Your task to perform on an android device: Open Google Image 0: 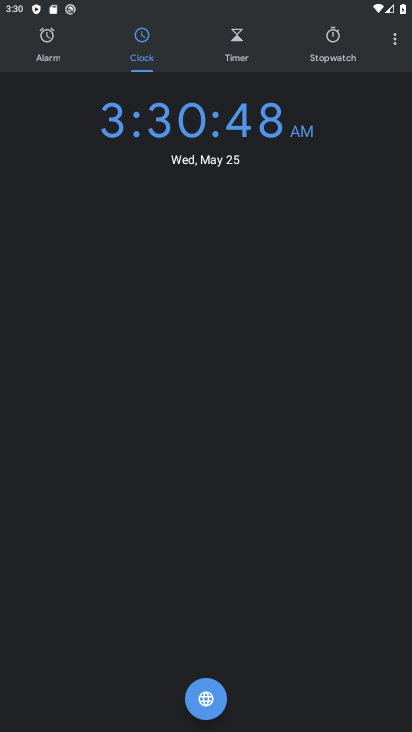
Step 0: press home button
Your task to perform on an android device: Open Google Image 1: 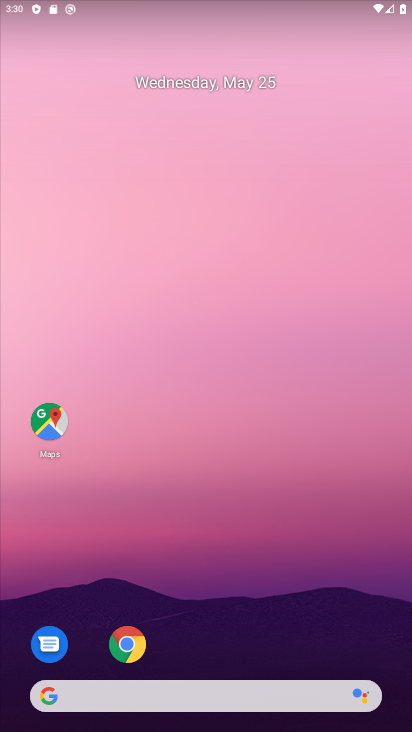
Step 1: drag from (238, 655) to (256, 42)
Your task to perform on an android device: Open Google Image 2: 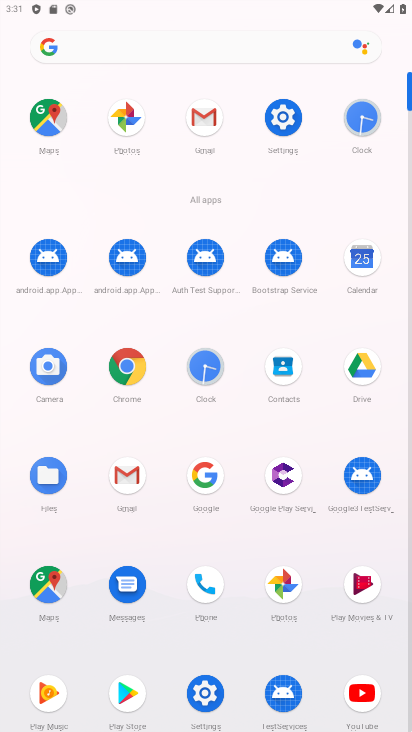
Step 2: click (198, 475)
Your task to perform on an android device: Open Google Image 3: 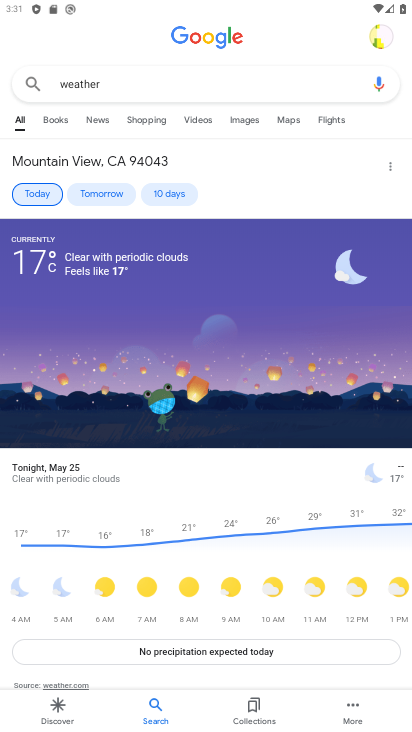
Step 3: task complete